Your task to perform on an android device: check android version Image 0: 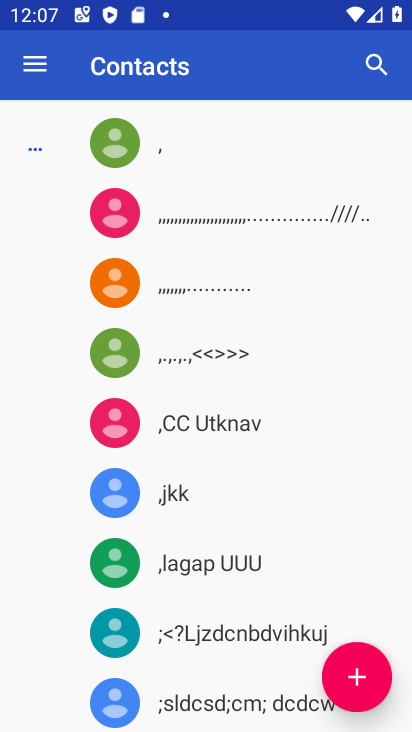
Step 0: press home button
Your task to perform on an android device: check android version Image 1: 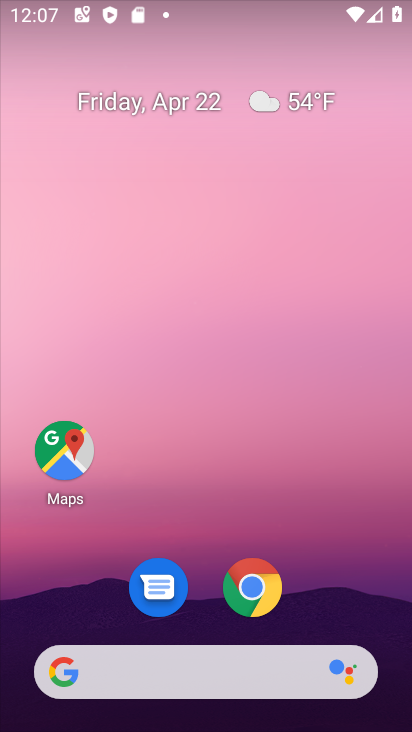
Step 1: drag from (388, 635) to (393, 449)
Your task to perform on an android device: check android version Image 2: 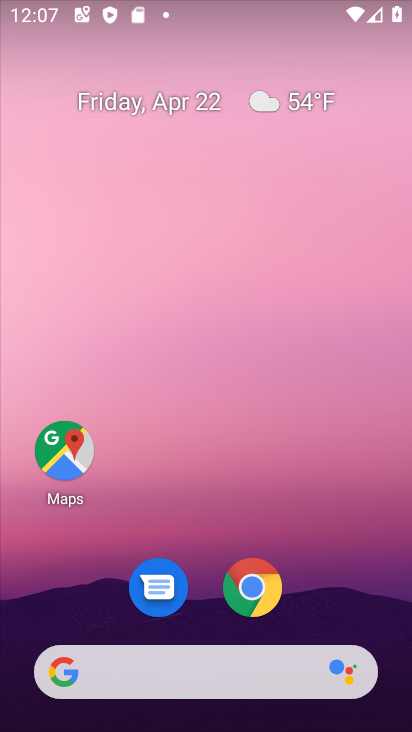
Step 2: drag from (363, 530) to (350, 4)
Your task to perform on an android device: check android version Image 3: 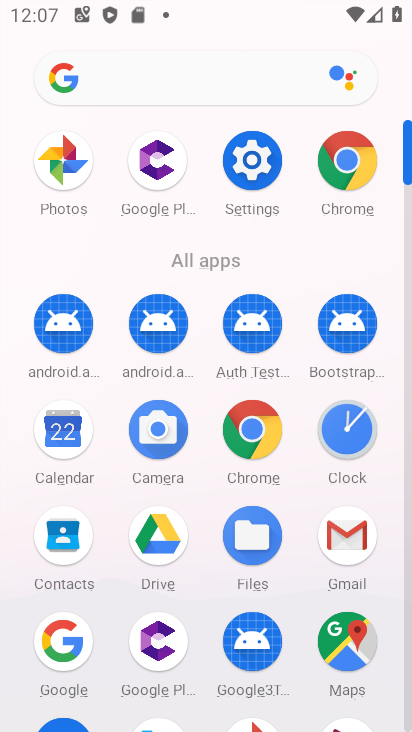
Step 3: click (255, 163)
Your task to perform on an android device: check android version Image 4: 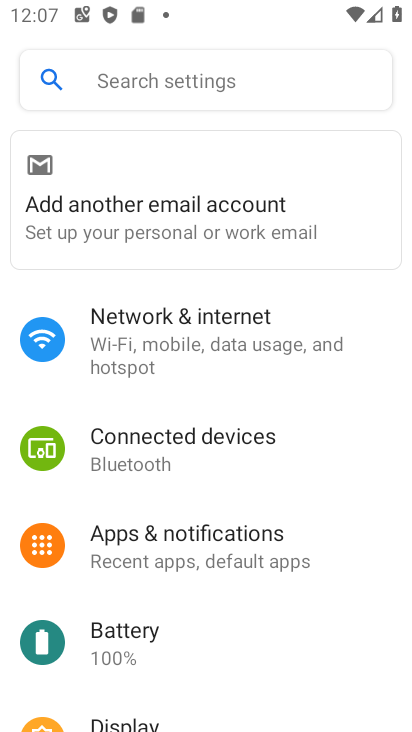
Step 4: drag from (347, 657) to (349, 131)
Your task to perform on an android device: check android version Image 5: 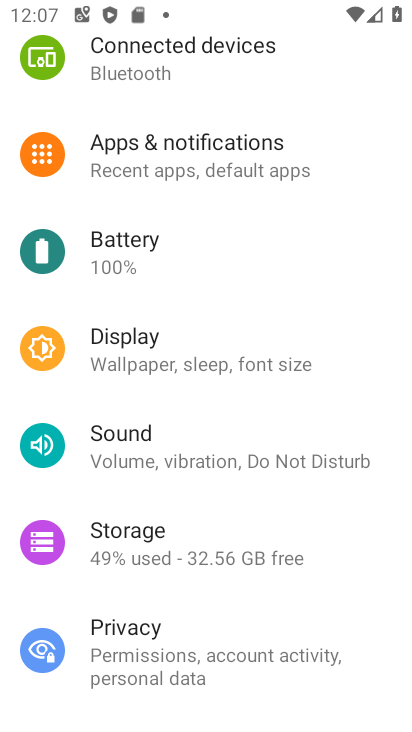
Step 5: drag from (339, 604) to (333, 142)
Your task to perform on an android device: check android version Image 6: 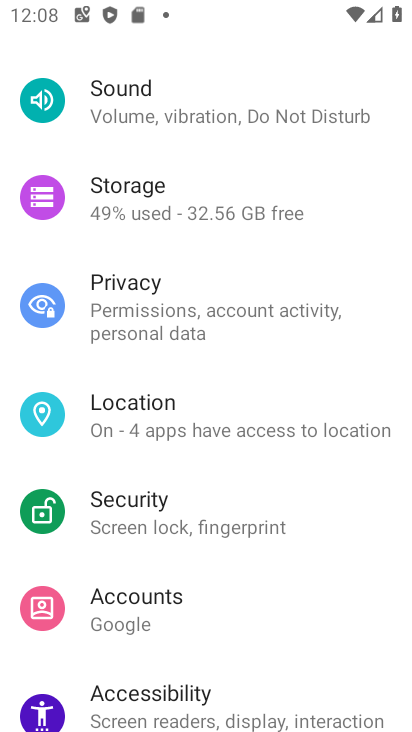
Step 6: drag from (287, 564) to (289, 166)
Your task to perform on an android device: check android version Image 7: 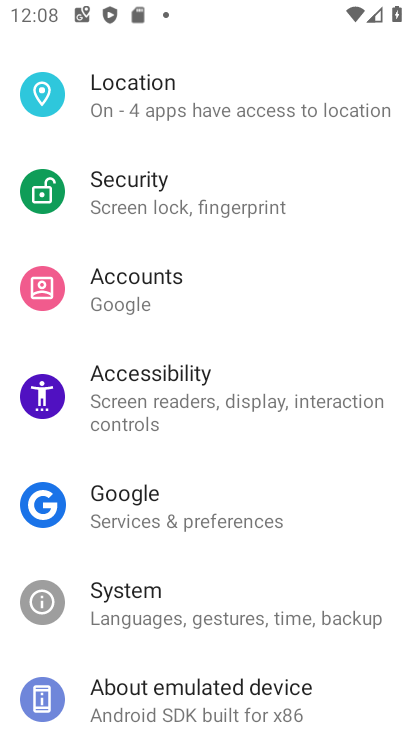
Step 7: drag from (215, 572) to (235, 265)
Your task to perform on an android device: check android version Image 8: 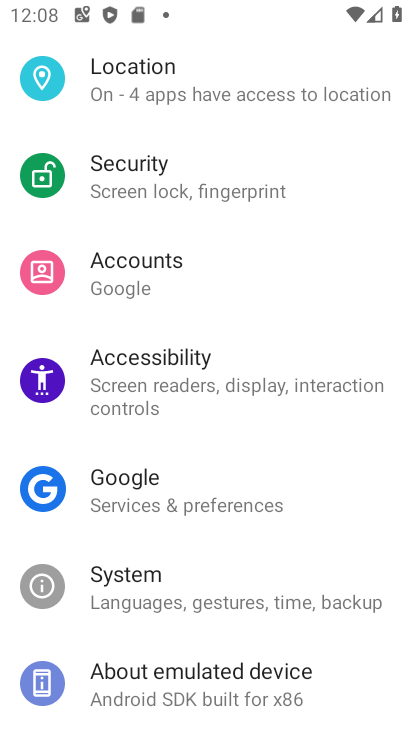
Step 8: click (186, 680)
Your task to perform on an android device: check android version Image 9: 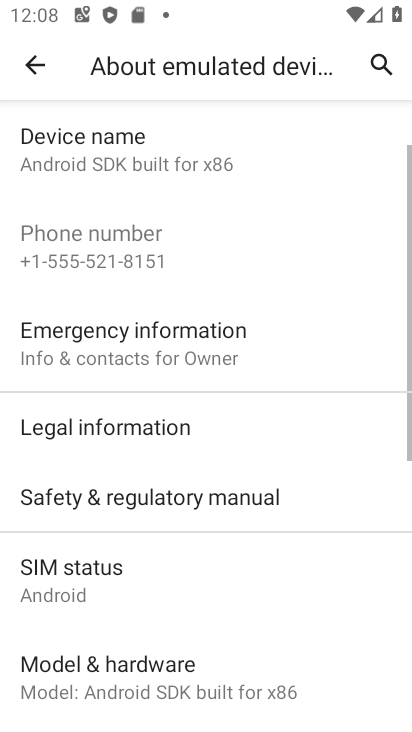
Step 9: drag from (257, 670) to (244, 197)
Your task to perform on an android device: check android version Image 10: 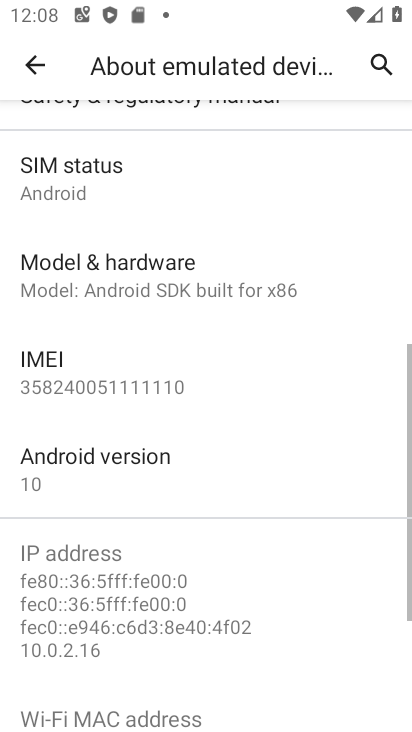
Step 10: click (57, 468)
Your task to perform on an android device: check android version Image 11: 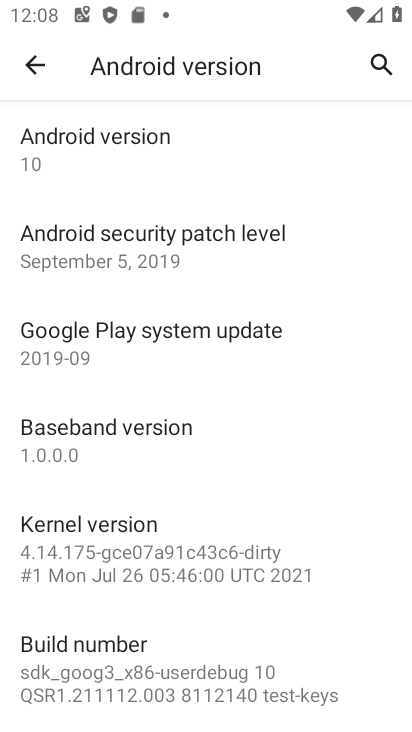
Step 11: task complete